Your task to perform on an android device: turn notification dots off Image 0: 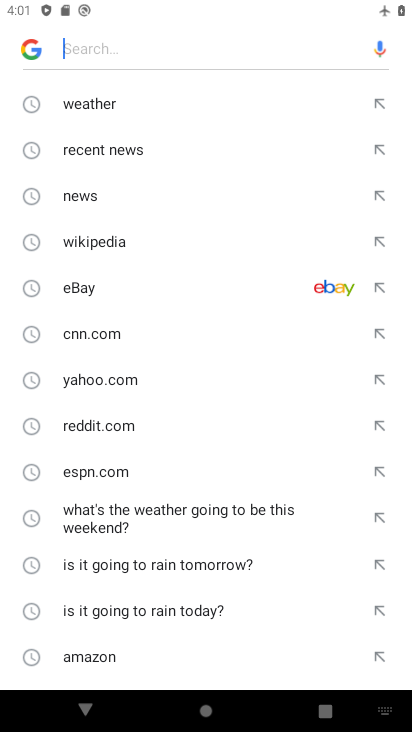
Step 0: press home button
Your task to perform on an android device: turn notification dots off Image 1: 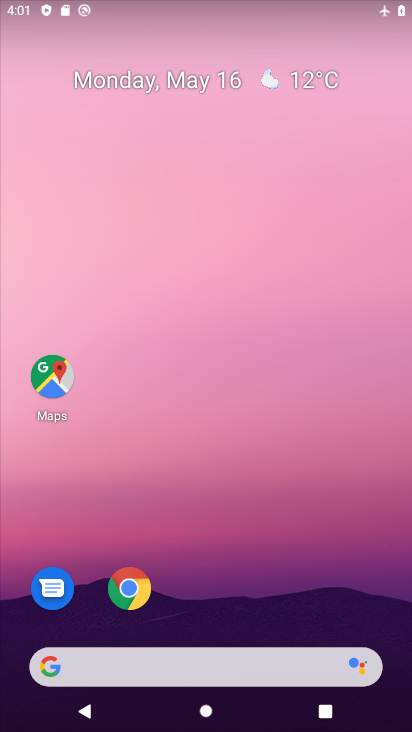
Step 1: drag from (335, 566) to (299, 232)
Your task to perform on an android device: turn notification dots off Image 2: 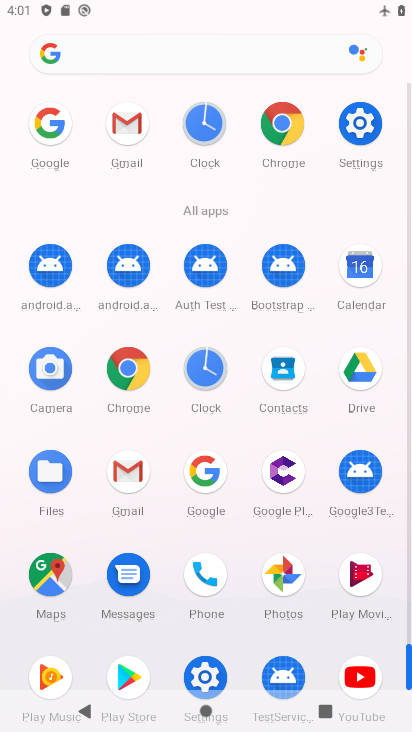
Step 2: click (353, 120)
Your task to perform on an android device: turn notification dots off Image 3: 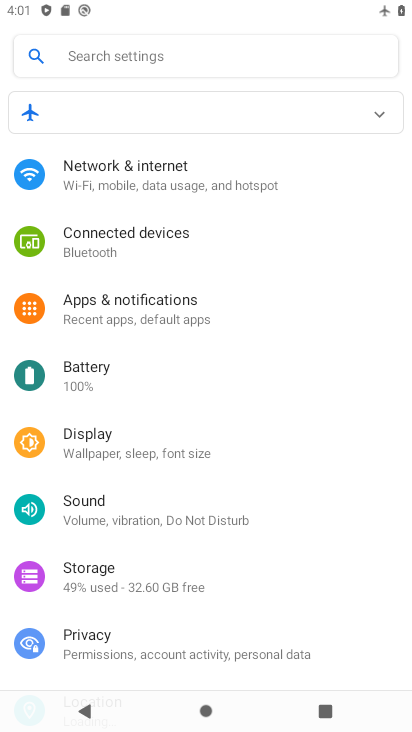
Step 3: click (189, 296)
Your task to perform on an android device: turn notification dots off Image 4: 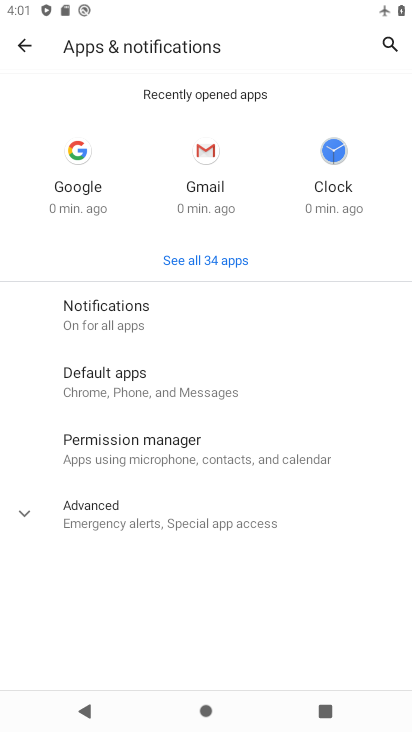
Step 4: click (128, 308)
Your task to perform on an android device: turn notification dots off Image 5: 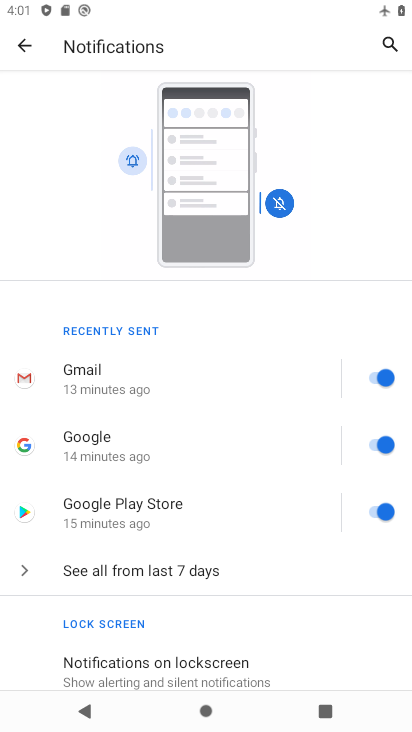
Step 5: drag from (323, 429) to (323, 371)
Your task to perform on an android device: turn notification dots off Image 6: 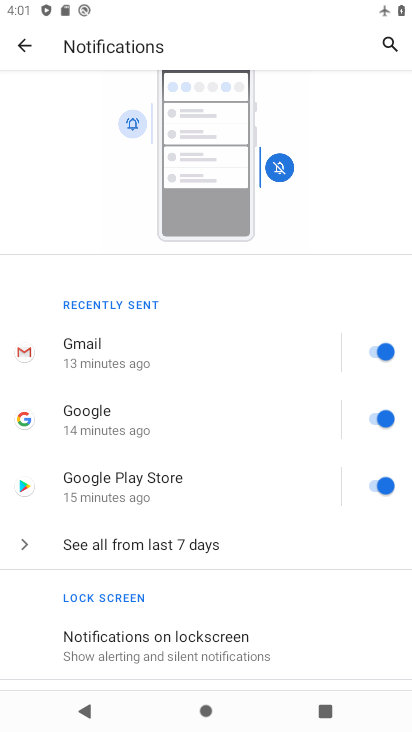
Step 6: drag from (246, 613) to (256, 290)
Your task to perform on an android device: turn notification dots off Image 7: 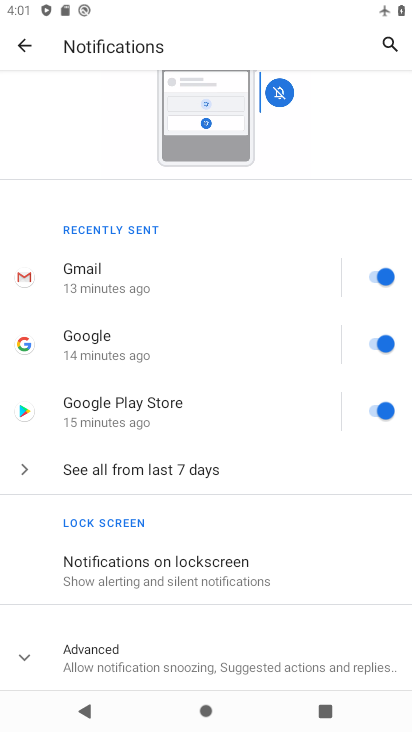
Step 7: click (282, 657)
Your task to perform on an android device: turn notification dots off Image 8: 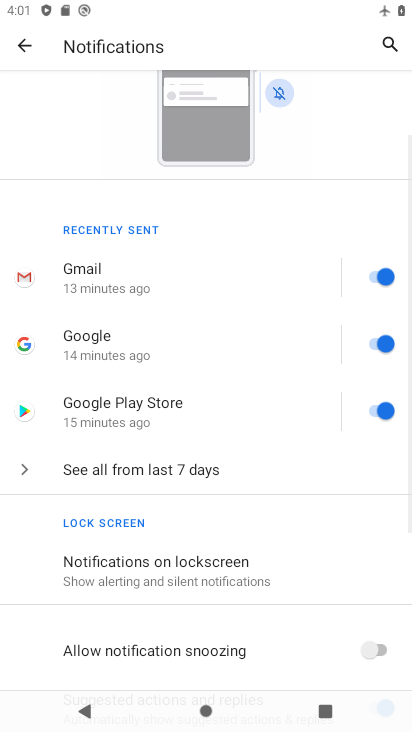
Step 8: task complete